Your task to perform on an android device: toggle airplane mode Image 0: 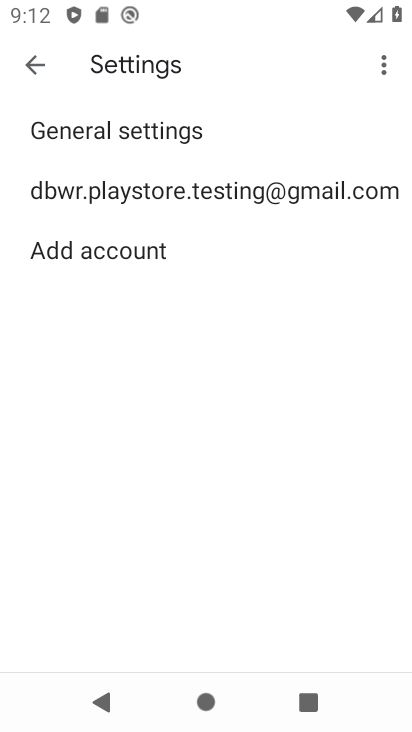
Step 0: press home button
Your task to perform on an android device: toggle airplane mode Image 1: 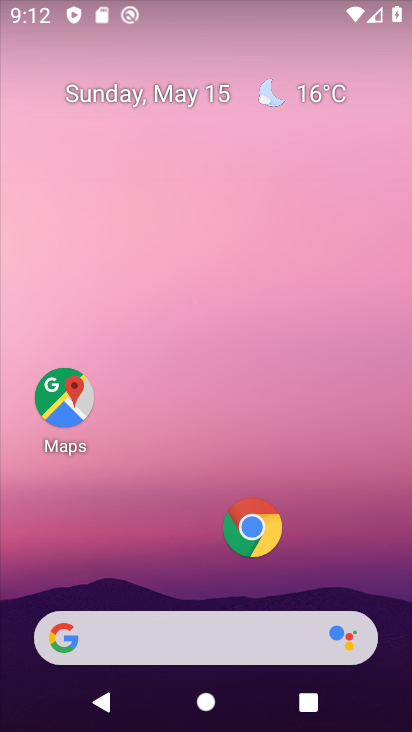
Step 1: drag from (196, 578) to (156, 4)
Your task to perform on an android device: toggle airplane mode Image 2: 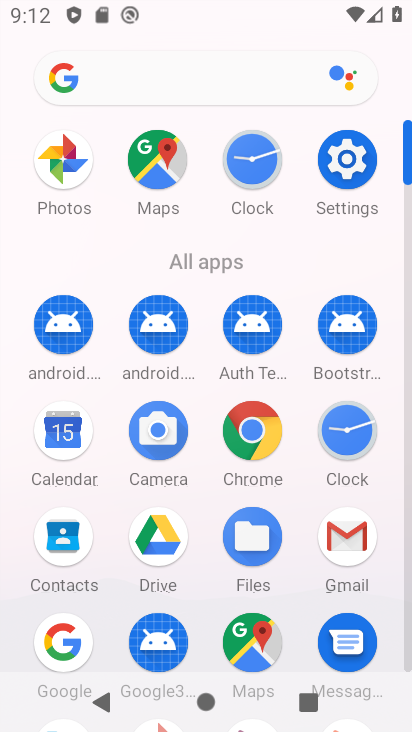
Step 2: drag from (248, 11) to (241, 626)
Your task to perform on an android device: toggle airplane mode Image 3: 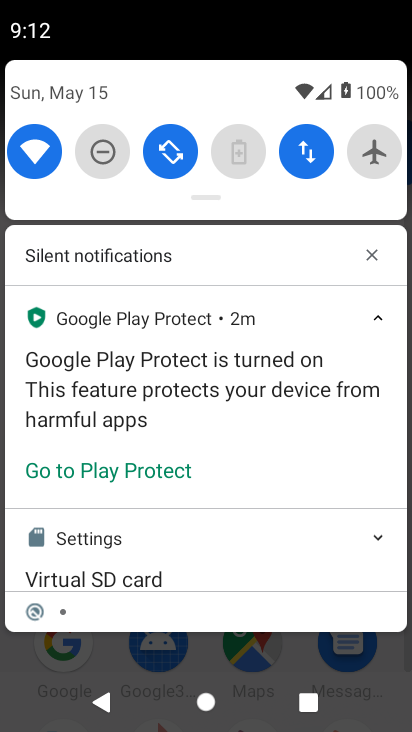
Step 3: click (373, 150)
Your task to perform on an android device: toggle airplane mode Image 4: 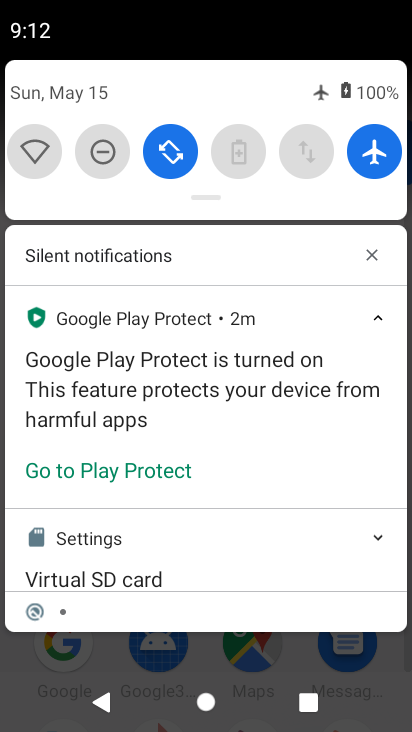
Step 4: task complete